Your task to perform on an android device: open sync settings in chrome Image 0: 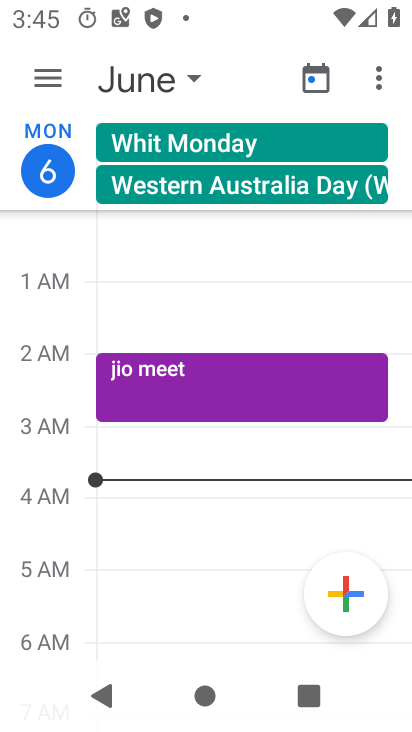
Step 0: press home button
Your task to perform on an android device: open sync settings in chrome Image 1: 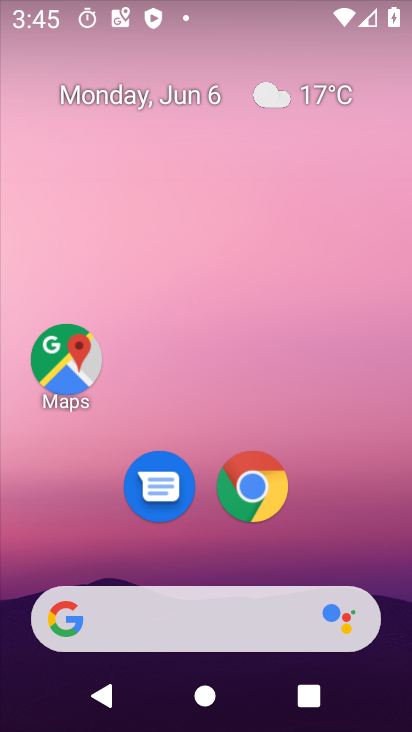
Step 1: click (252, 481)
Your task to perform on an android device: open sync settings in chrome Image 2: 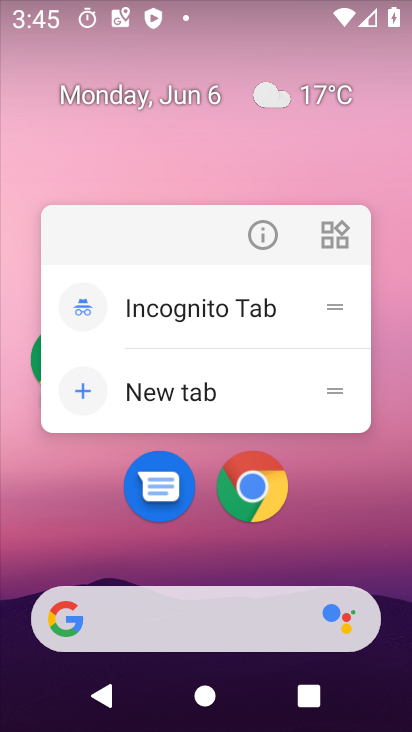
Step 2: click (252, 485)
Your task to perform on an android device: open sync settings in chrome Image 3: 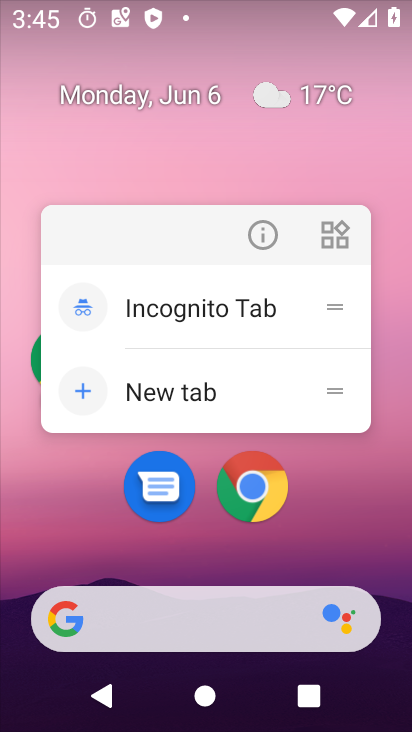
Step 3: click (252, 485)
Your task to perform on an android device: open sync settings in chrome Image 4: 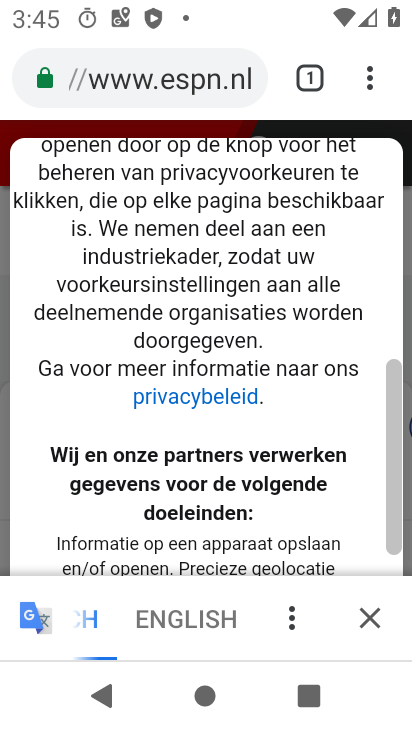
Step 4: drag from (372, 82) to (181, 532)
Your task to perform on an android device: open sync settings in chrome Image 5: 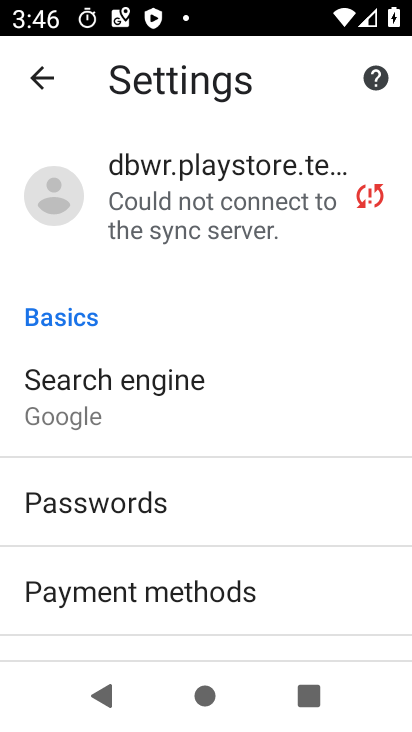
Step 5: click (214, 187)
Your task to perform on an android device: open sync settings in chrome Image 6: 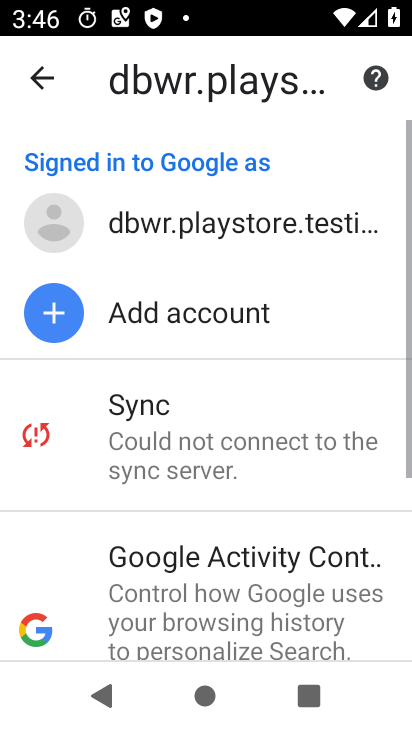
Step 6: click (176, 442)
Your task to perform on an android device: open sync settings in chrome Image 7: 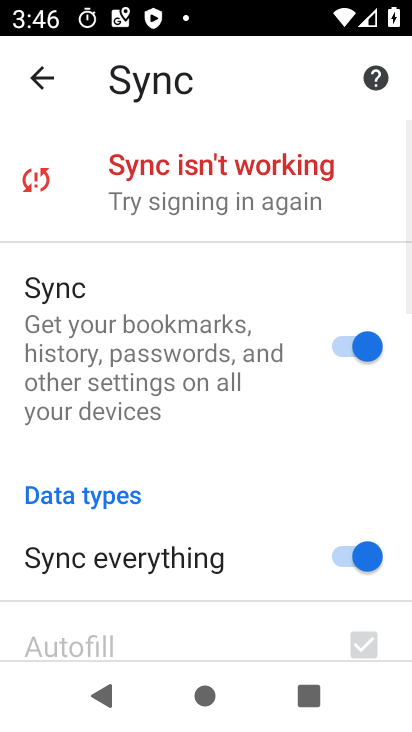
Step 7: task complete